Your task to perform on an android device: Go to Wikipedia Image 0: 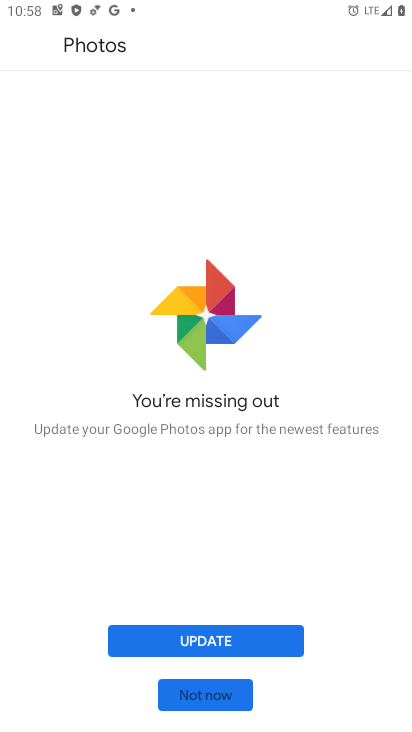
Step 0: press home button
Your task to perform on an android device: Go to Wikipedia Image 1: 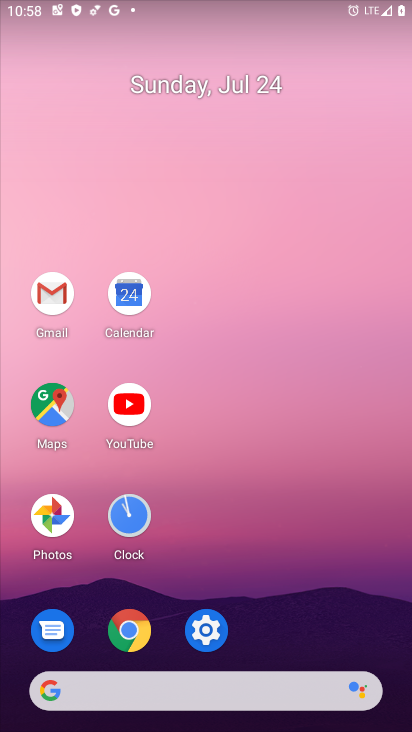
Step 1: click (117, 635)
Your task to perform on an android device: Go to Wikipedia Image 2: 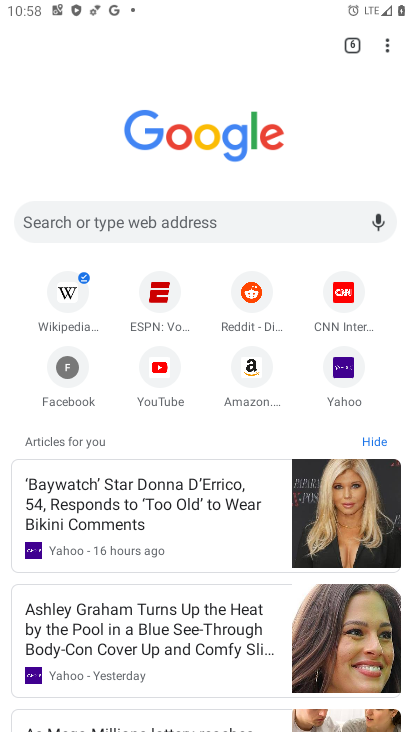
Step 2: click (64, 284)
Your task to perform on an android device: Go to Wikipedia Image 3: 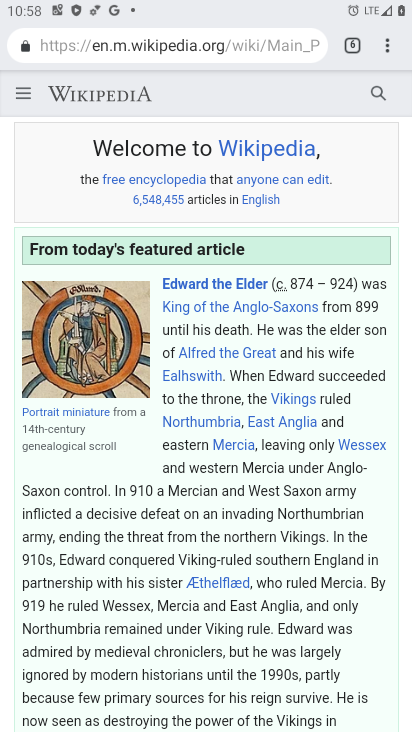
Step 3: task complete